Your task to perform on an android device: Play the last video I watched on Youtube Image 0: 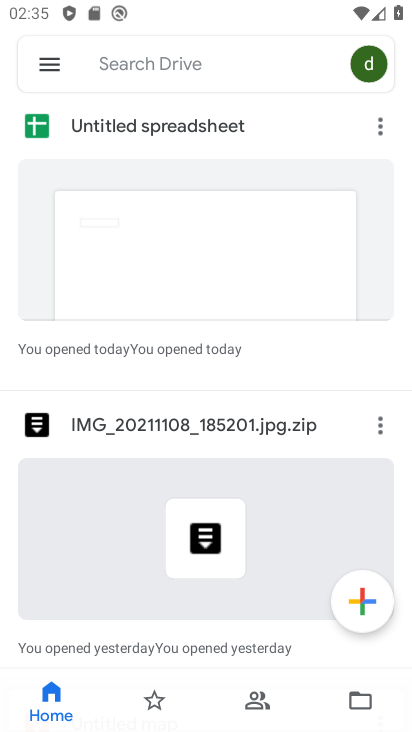
Step 0: press home button
Your task to perform on an android device: Play the last video I watched on Youtube Image 1: 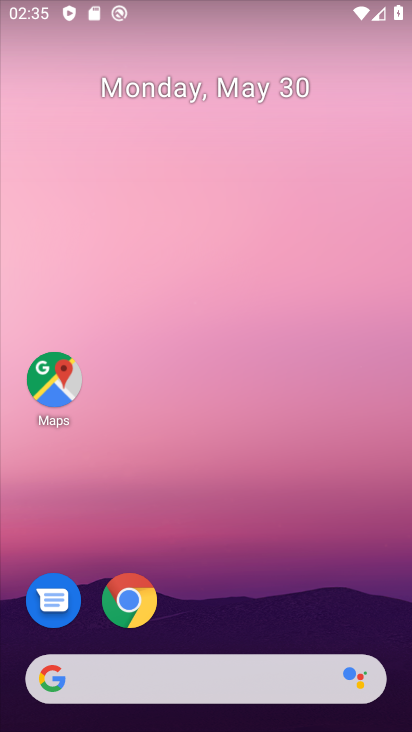
Step 1: drag from (267, 565) to (332, 65)
Your task to perform on an android device: Play the last video I watched on Youtube Image 2: 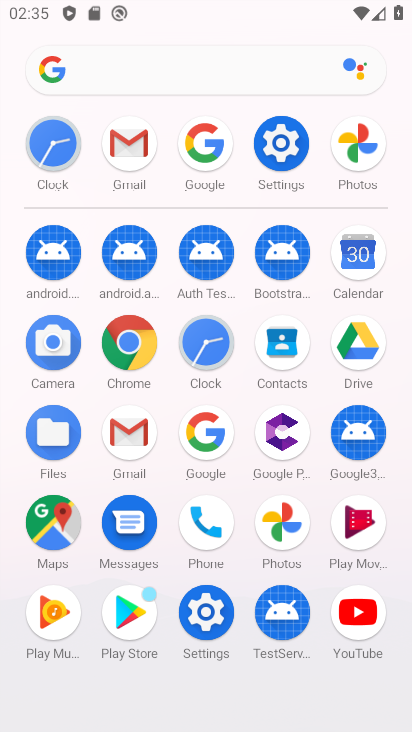
Step 2: click (359, 613)
Your task to perform on an android device: Play the last video I watched on Youtube Image 3: 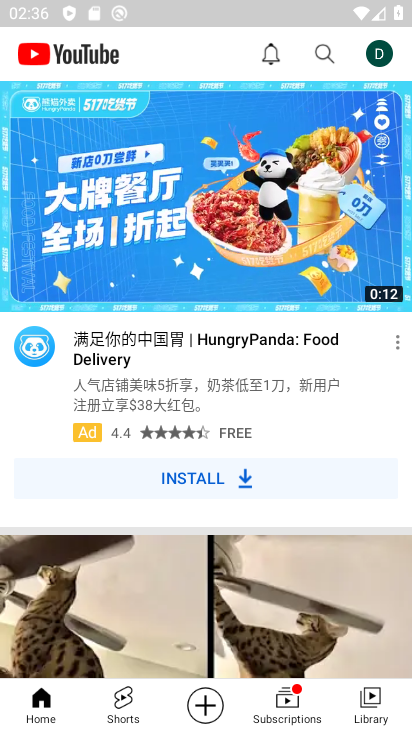
Step 3: click (373, 702)
Your task to perform on an android device: Play the last video I watched on Youtube Image 4: 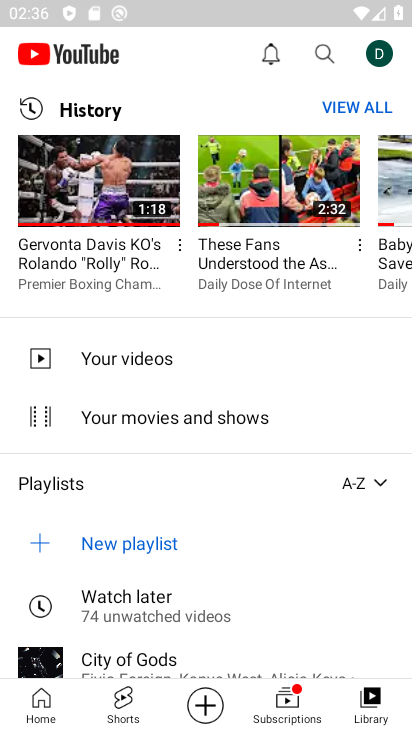
Step 4: click (87, 180)
Your task to perform on an android device: Play the last video I watched on Youtube Image 5: 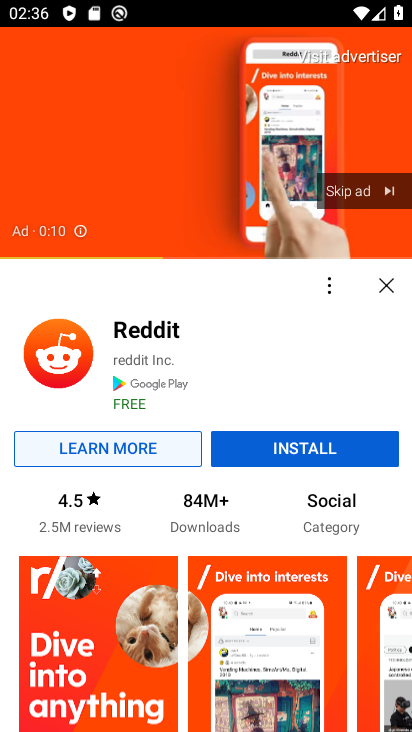
Step 5: click (371, 194)
Your task to perform on an android device: Play the last video I watched on Youtube Image 6: 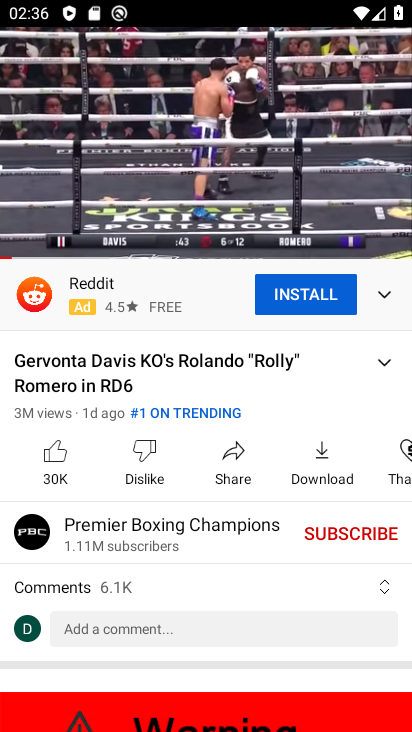
Step 6: task complete